Your task to perform on an android device: Search for the best rated headphones on Amazon Image 0: 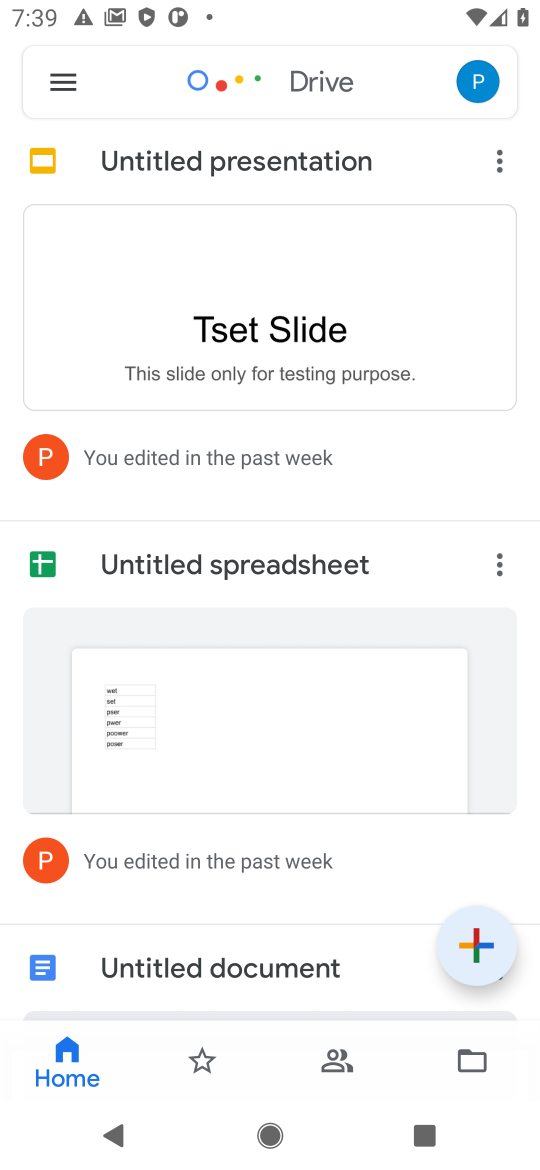
Step 0: press home button
Your task to perform on an android device: Search for the best rated headphones on Amazon Image 1: 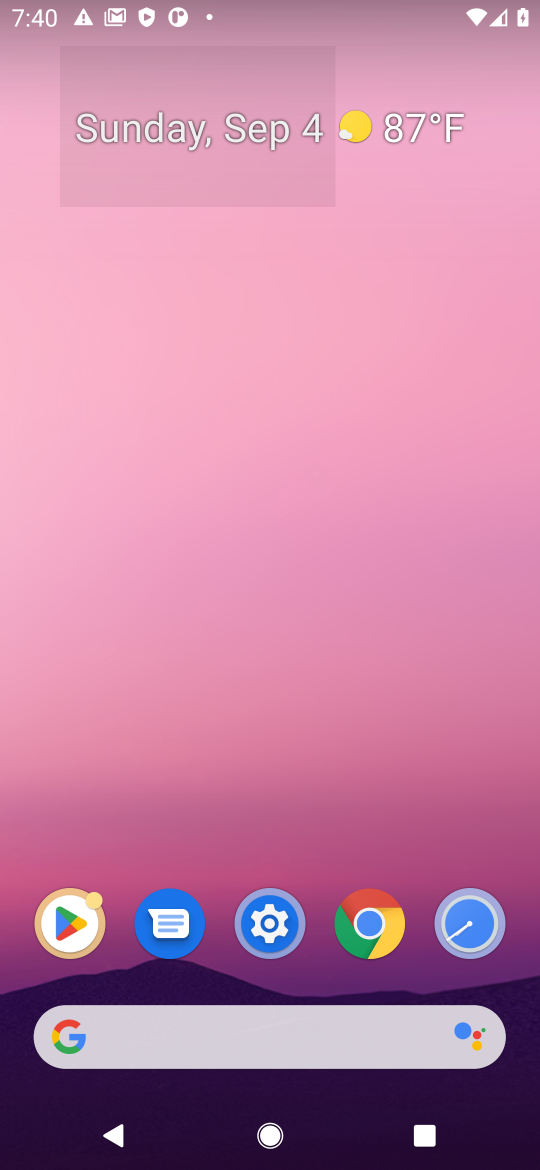
Step 1: click (377, 1039)
Your task to perform on an android device: Search for the best rated headphones on Amazon Image 2: 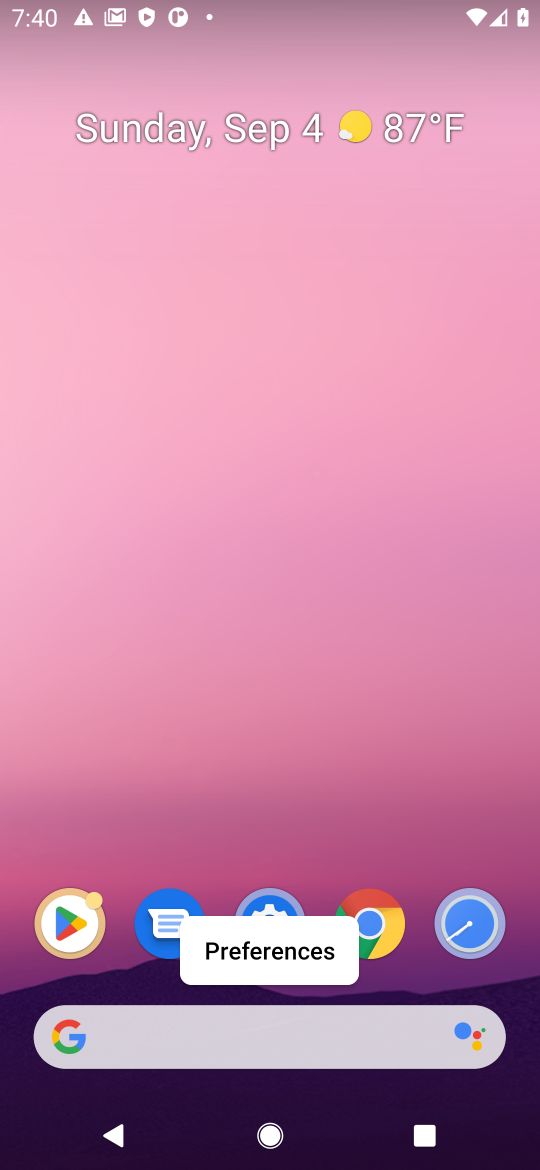
Step 2: click (403, 1042)
Your task to perform on an android device: Search for the best rated headphones on Amazon Image 3: 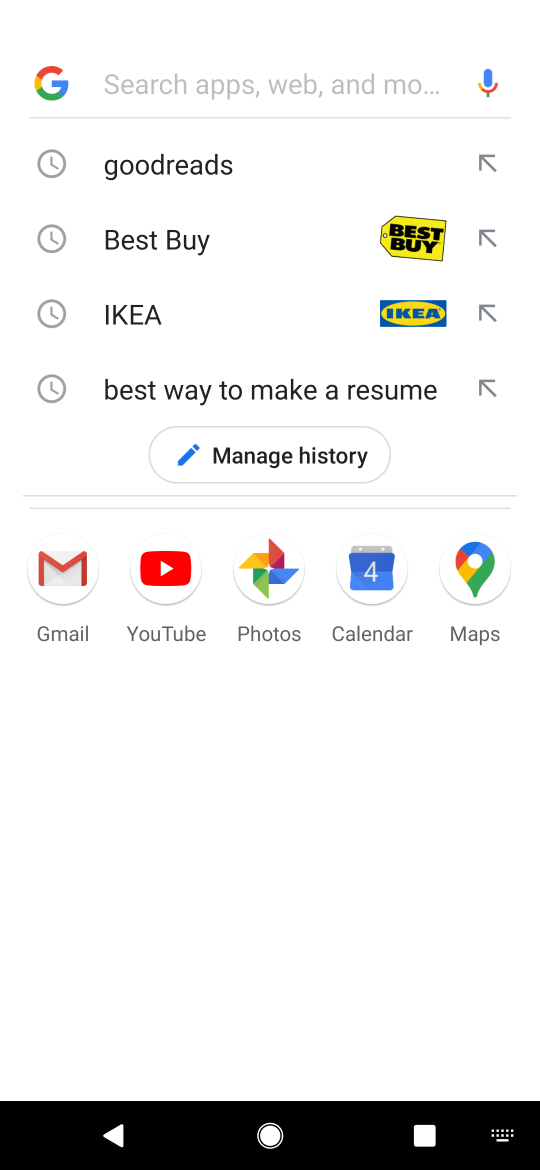
Step 3: press enter
Your task to perform on an android device: Search for the best rated headphones on Amazon Image 4: 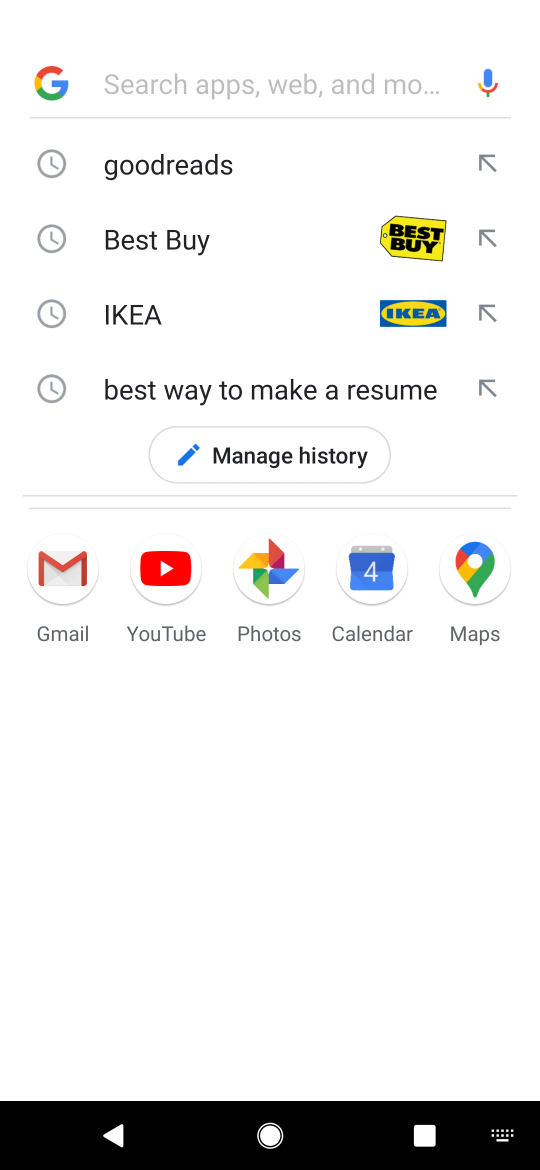
Step 4: type "amazon"
Your task to perform on an android device: Search for the best rated headphones on Amazon Image 5: 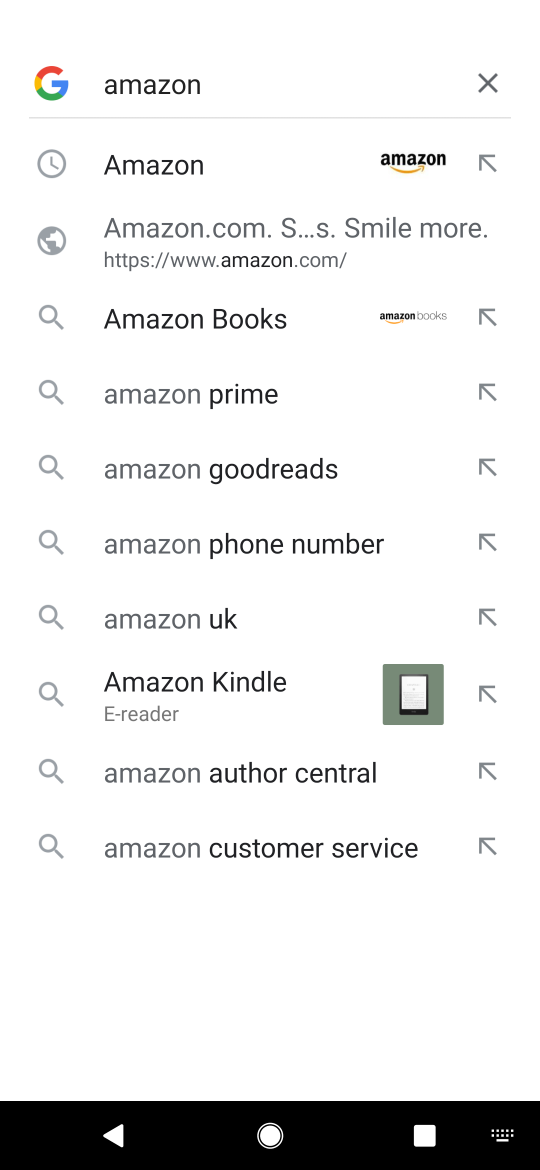
Step 5: click (248, 170)
Your task to perform on an android device: Search for the best rated headphones on Amazon Image 6: 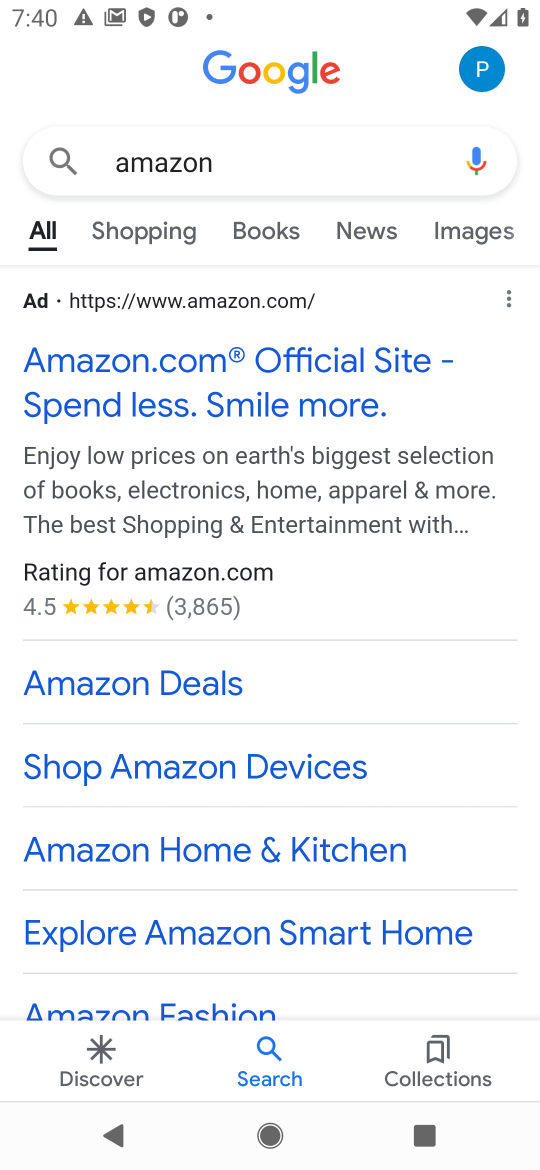
Step 6: click (316, 374)
Your task to perform on an android device: Search for the best rated headphones on Amazon Image 7: 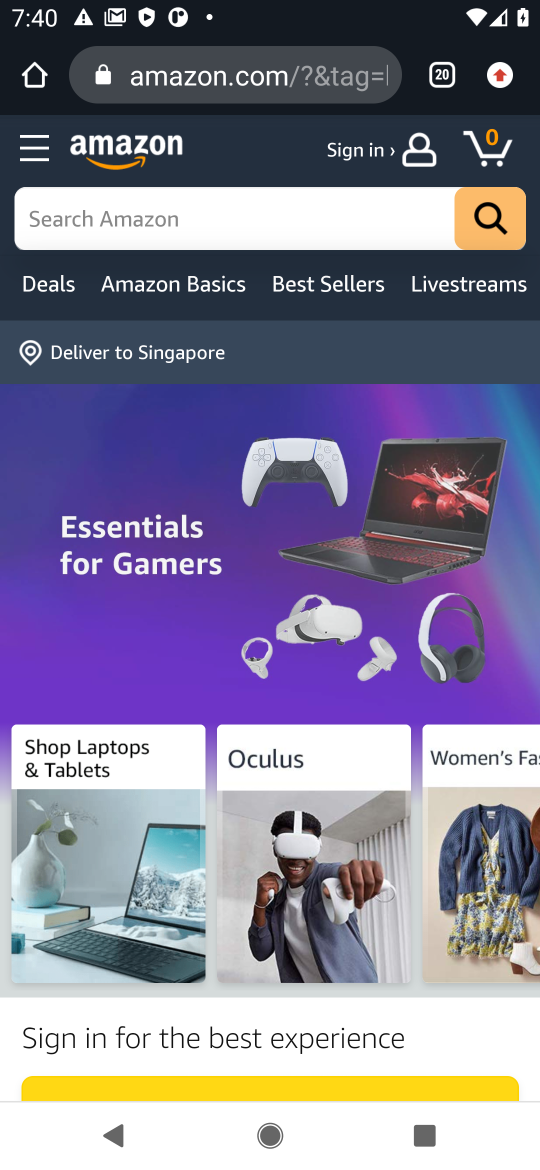
Step 7: click (293, 205)
Your task to perform on an android device: Search for the best rated headphones on Amazon Image 8: 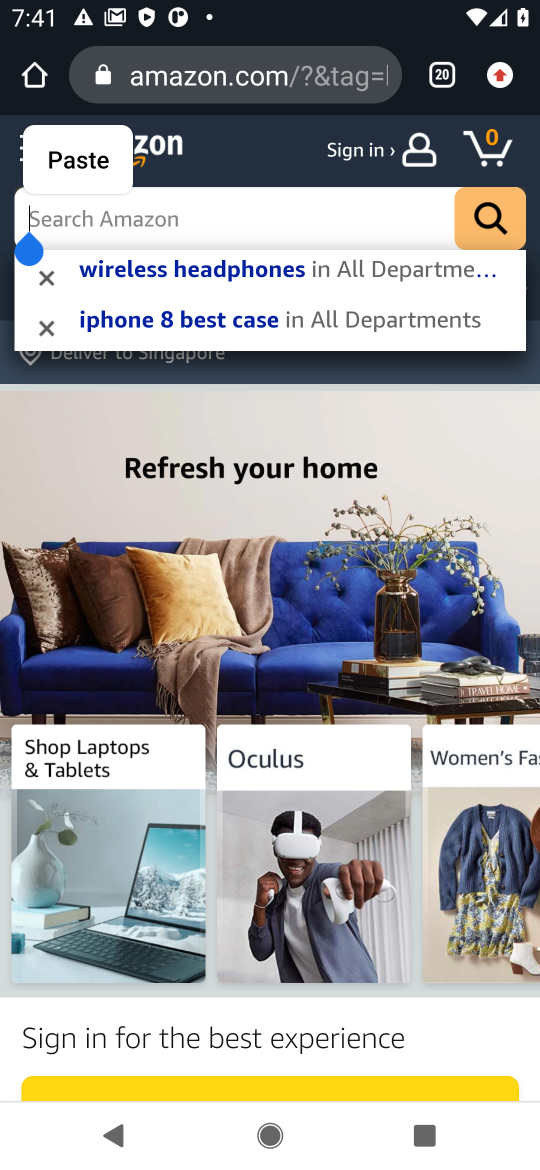
Step 8: type "headphones"
Your task to perform on an android device: Search for the best rated headphones on Amazon Image 9: 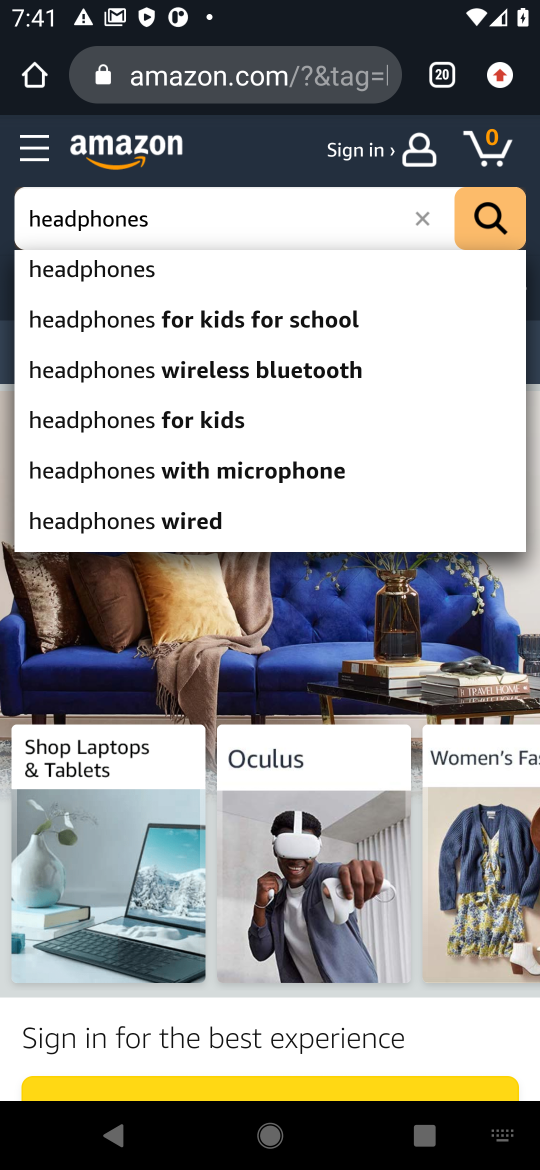
Step 9: click (158, 267)
Your task to perform on an android device: Search for the best rated headphones on Amazon Image 10: 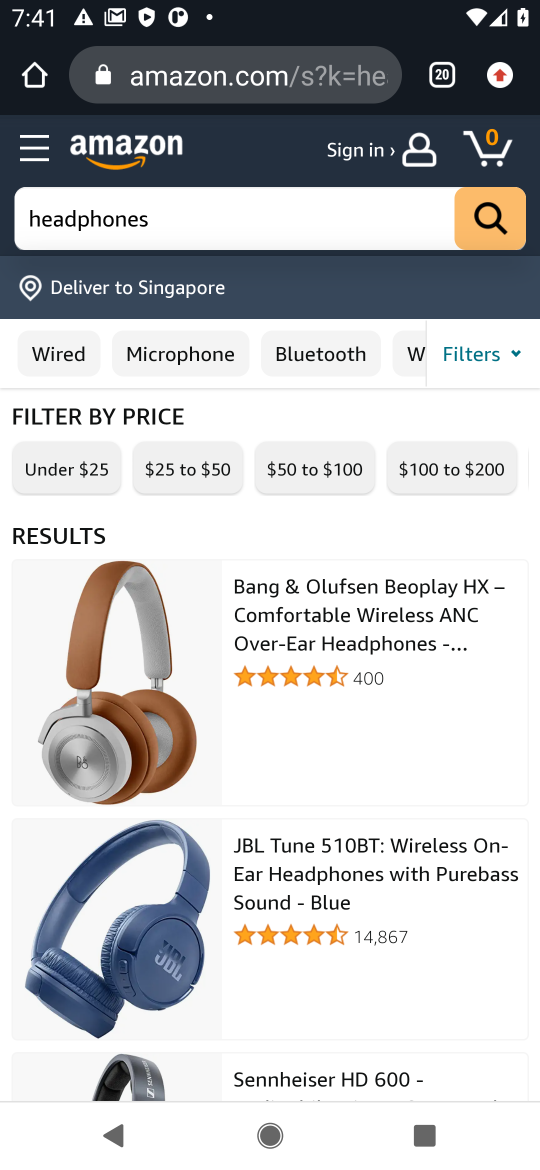
Step 10: task complete